Your task to perform on an android device: See recent photos Image 0: 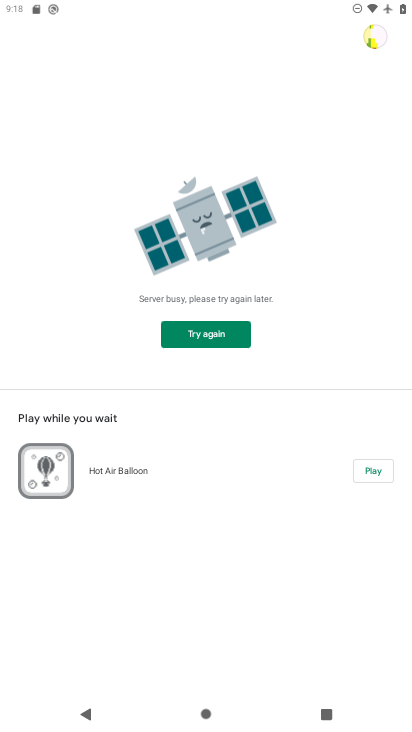
Step 0: press home button
Your task to perform on an android device: See recent photos Image 1: 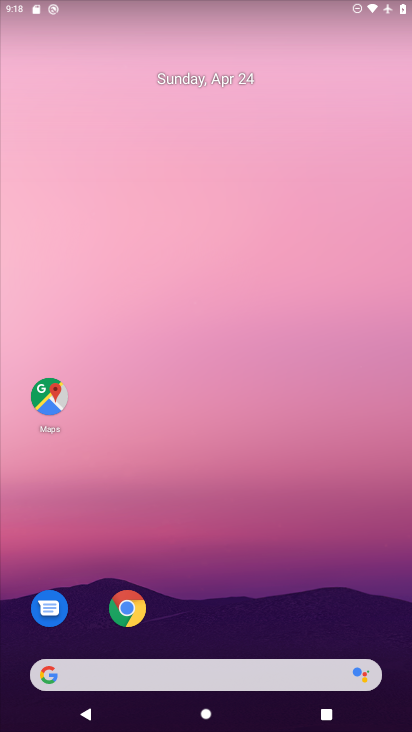
Step 1: drag from (198, 586) to (198, 93)
Your task to perform on an android device: See recent photos Image 2: 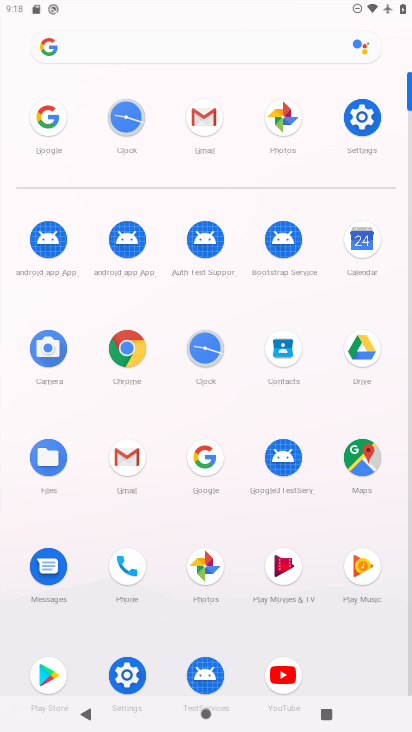
Step 2: click (285, 126)
Your task to perform on an android device: See recent photos Image 3: 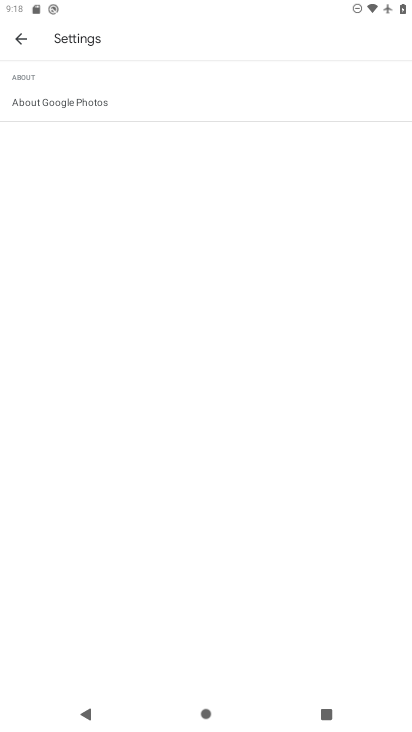
Step 3: click (16, 36)
Your task to perform on an android device: See recent photos Image 4: 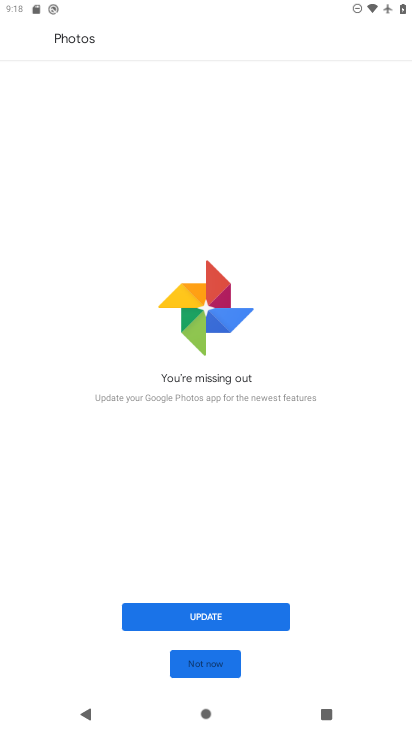
Step 4: click (212, 664)
Your task to perform on an android device: See recent photos Image 5: 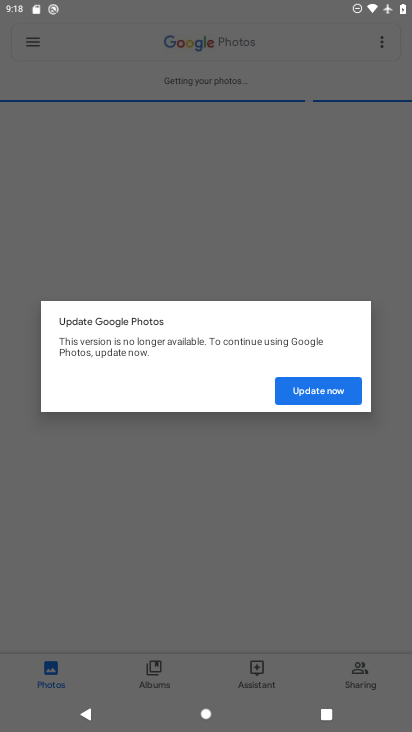
Step 5: click (288, 392)
Your task to perform on an android device: See recent photos Image 6: 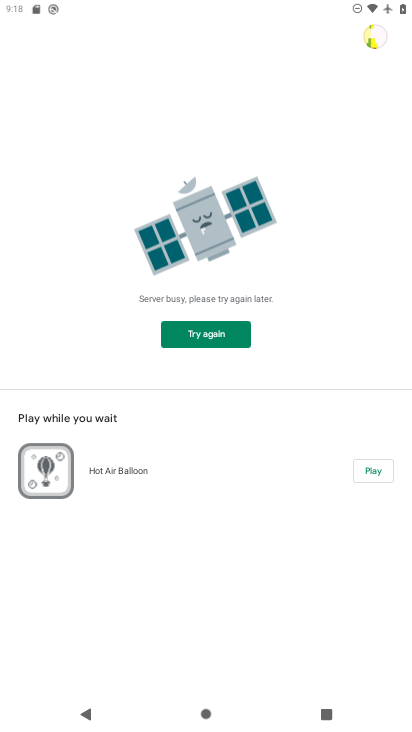
Step 6: task complete